Your task to perform on an android device: Go to sound settings Image 0: 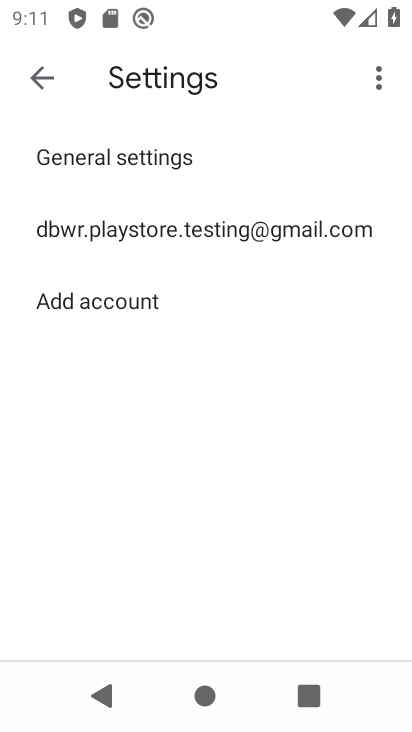
Step 0: press home button
Your task to perform on an android device: Go to sound settings Image 1: 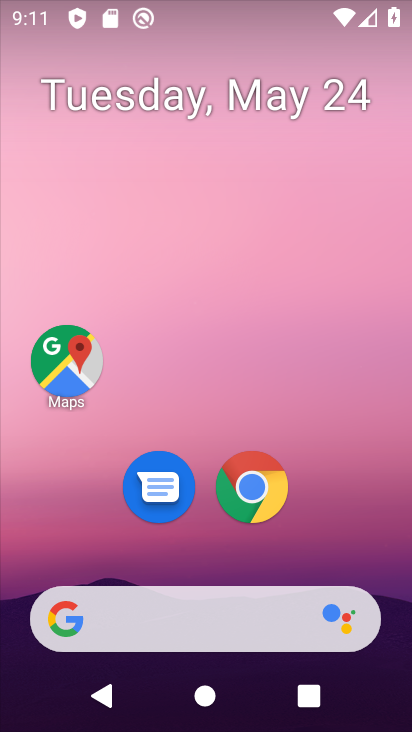
Step 1: drag from (342, 563) to (336, 9)
Your task to perform on an android device: Go to sound settings Image 2: 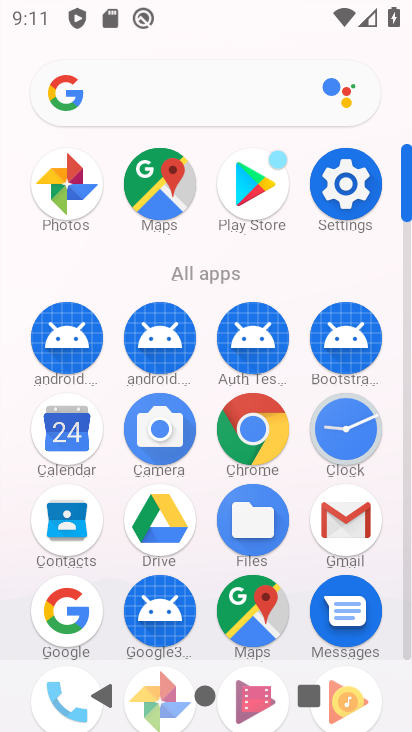
Step 2: click (346, 183)
Your task to perform on an android device: Go to sound settings Image 3: 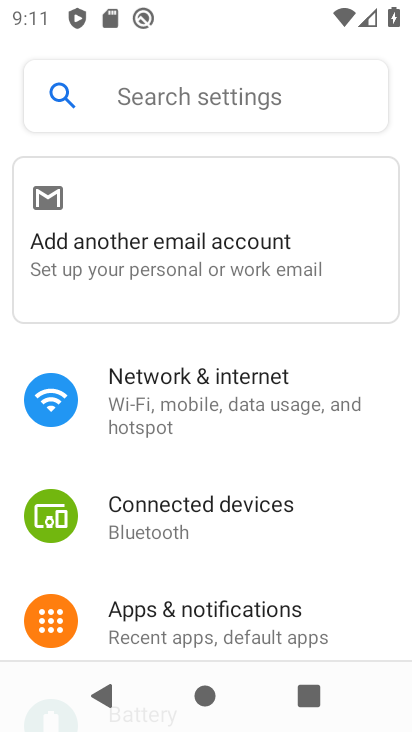
Step 3: drag from (291, 596) to (280, 129)
Your task to perform on an android device: Go to sound settings Image 4: 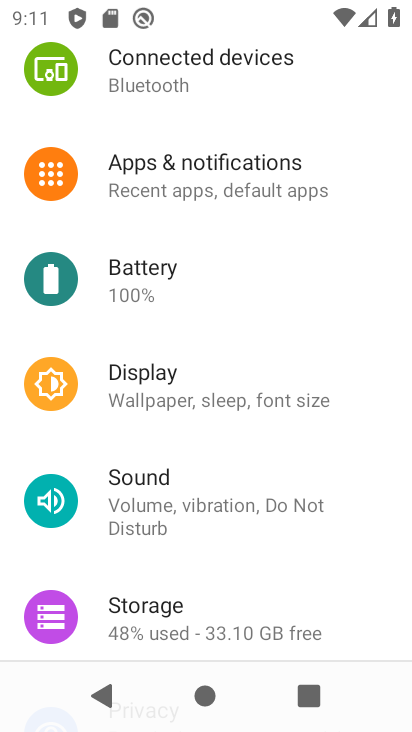
Step 4: click (145, 490)
Your task to perform on an android device: Go to sound settings Image 5: 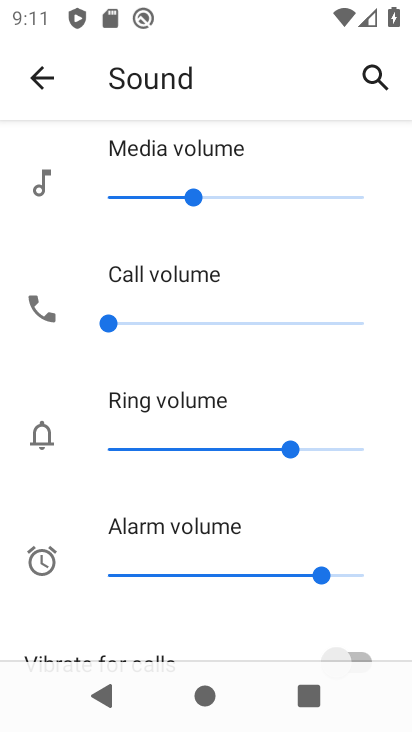
Step 5: task complete